Your task to perform on an android device: toggle priority inbox in the gmail app Image 0: 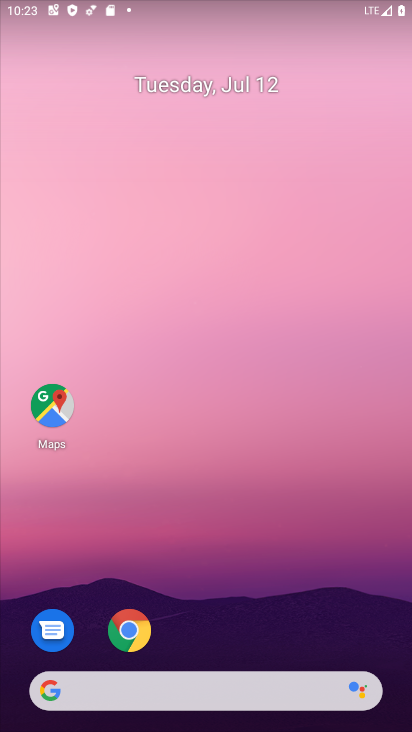
Step 0: drag from (224, 602) to (224, 129)
Your task to perform on an android device: toggle priority inbox in the gmail app Image 1: 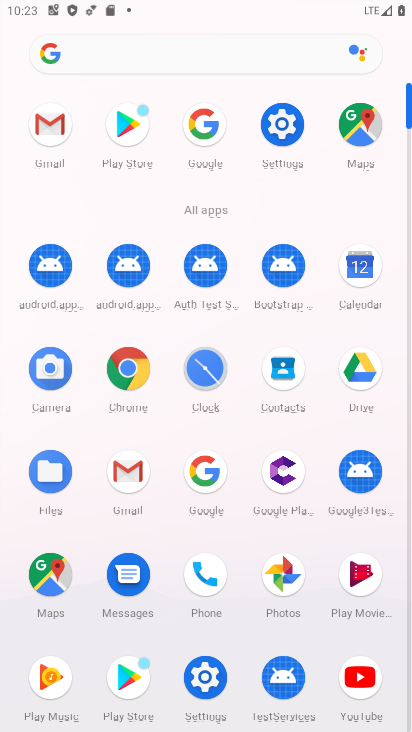
Step 1: click (135, 474)
Your task to perform on an android device: toggle priority inbox in the gmail app Image 2: 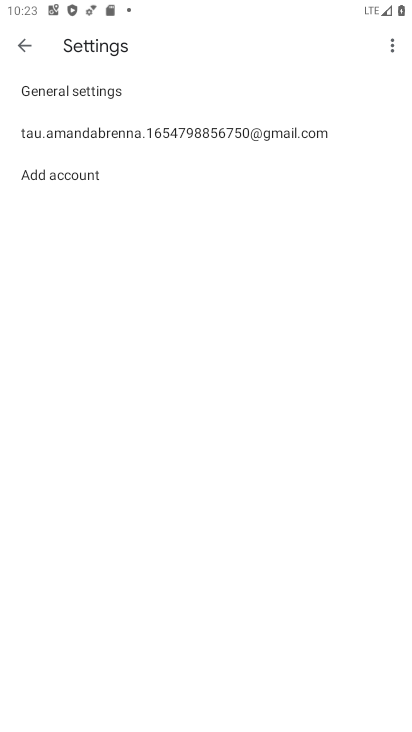
Step 2: click (79, 129)
Your task to perform on an android device: toggle priority inbox in the gmail app Image 3: 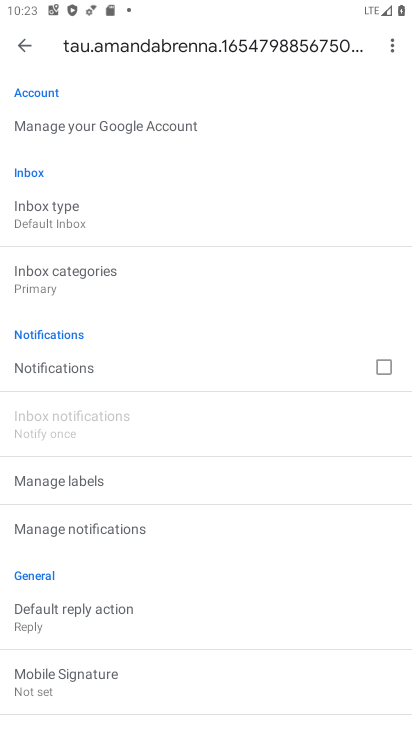
Step 3: drag from (143, 528) to (155, 680)
Your task to perform on an android device: toggle priority inbox in the gmail app Image 4: 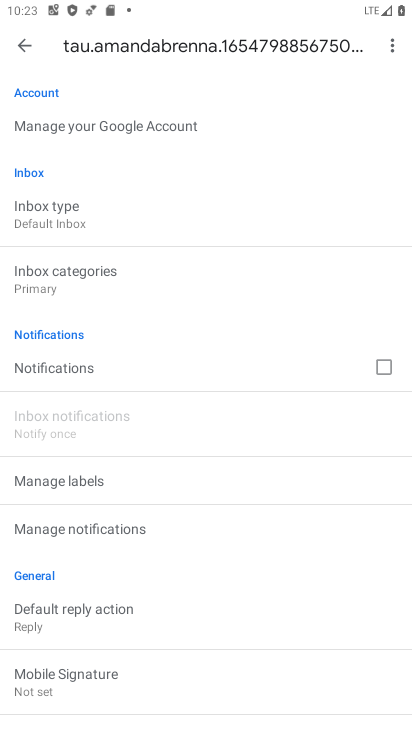
Step 4: click (65, 220)
Your task to perform on an android device: toggle priority inbox in the gmail app Image 5: 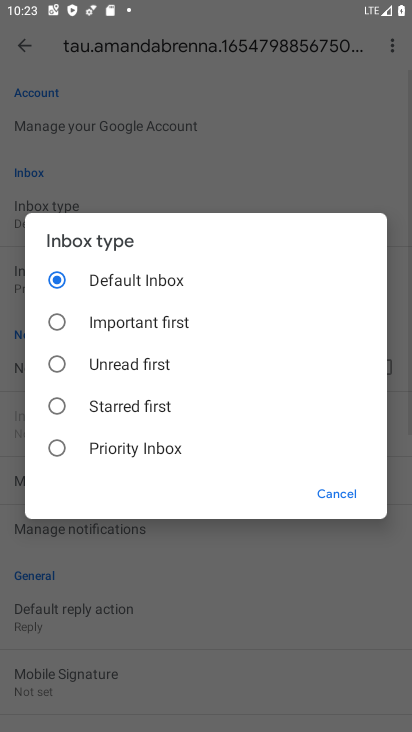
Step 5: click (54, 450)
Your task to perform on an android device: toggle priority inbox in the gmail app Image 6: 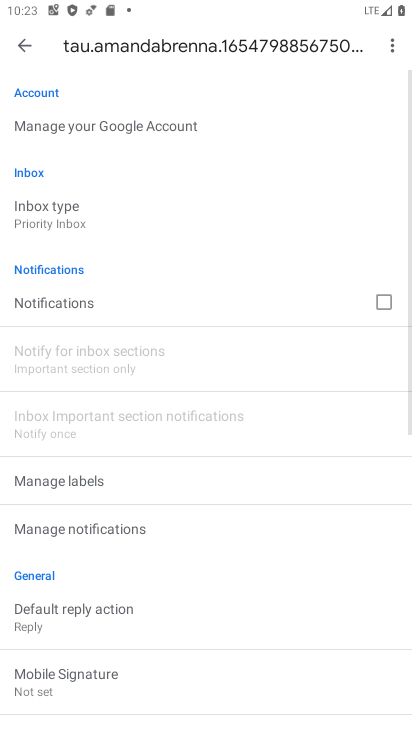
Step 6: task complete